Your task to perform on an android device: make emails show in primary in the gmail app Image 0: 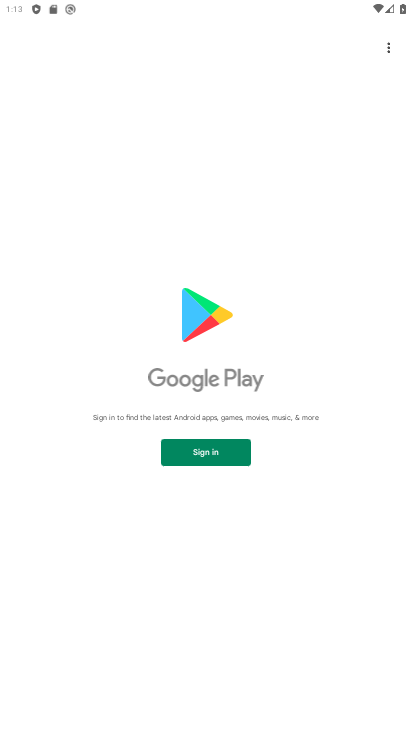
Step 0: press home button
Your task to perform on an android device: make emails show in primary in the gmail app Image 1: 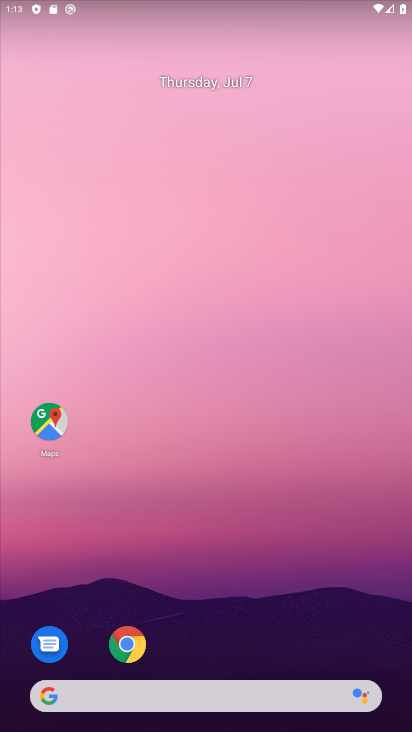
Step 1: drag from (17, 668) to (147, 208)
Your task to perform on an android device: make emails show in primary in the gmail app Image 2: 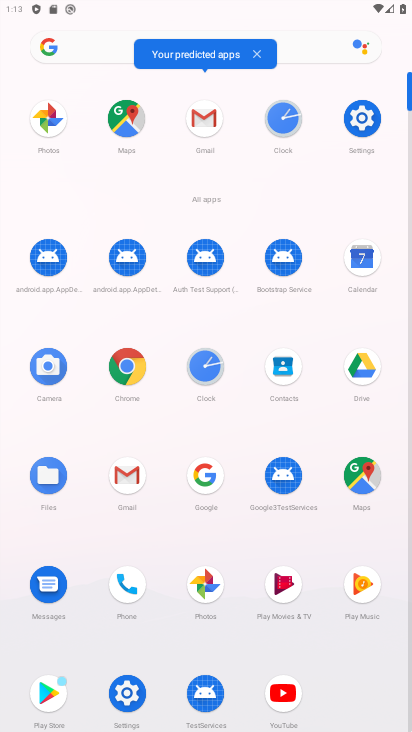
Step 2: click (194, 126)
Your task to perform on an android device: make emails show in primary in the gmail app Image 3: 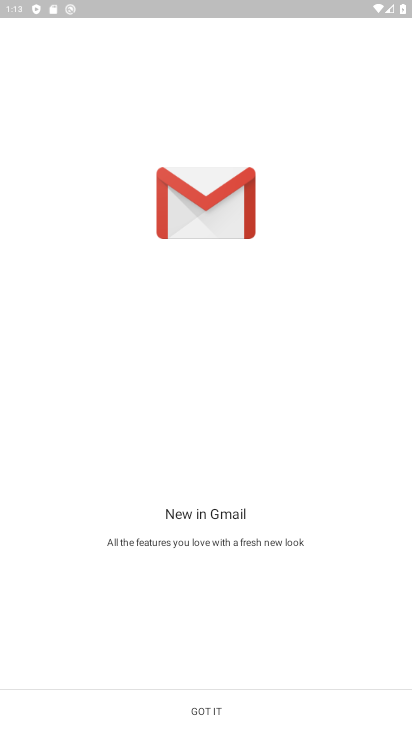
Step 3: click (206, 700)
Your task to perform on an android device: make emails show in primary in the gmail app Image 4: 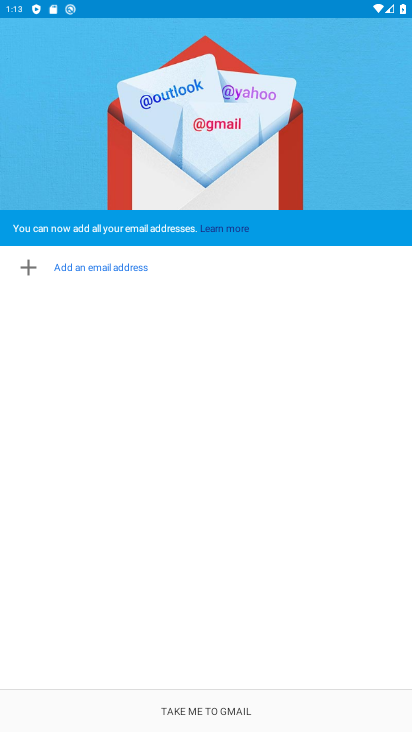
Step 4: click (196, 714)
Your task to perform on an android device: make emails show in primary in the gmail app Image 5: 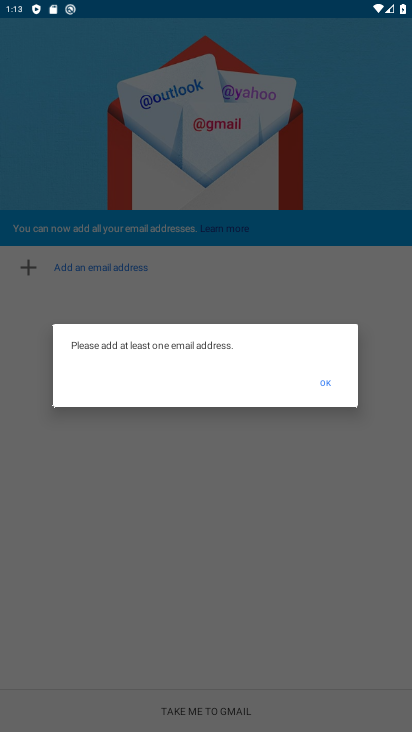
Step 5: click (335, 375)
Your task to perform on an android device: make emails show in primary in the gmail app Image 6: 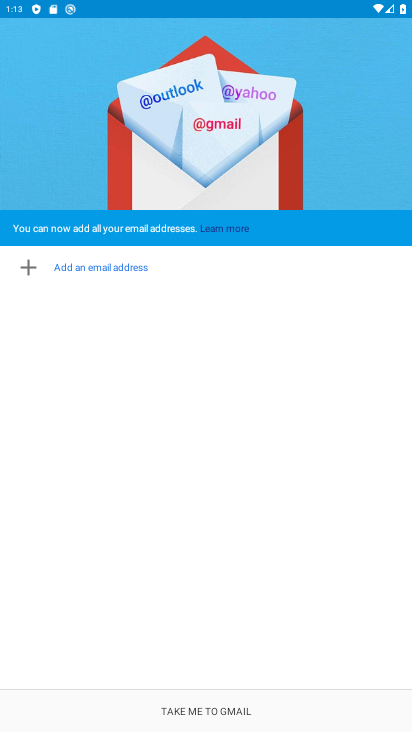
Step 6: task complete